Your task to perform on an android device: manage bookmarks in the chrome app Image 0: 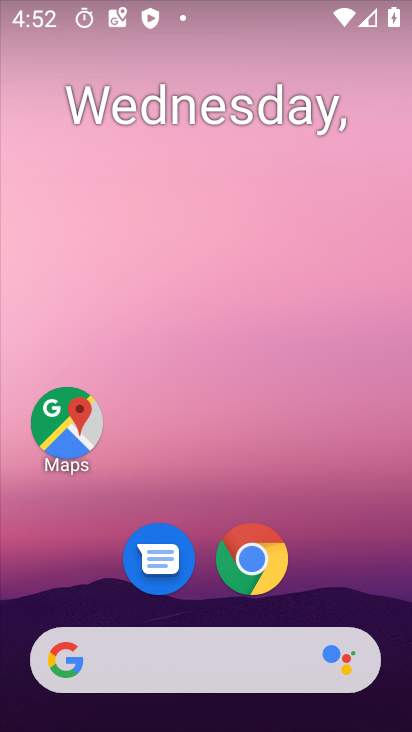
Step 0: click (256, 573)
Your task to perform on an android device: manage bookmarks in the chrome app Image 1: 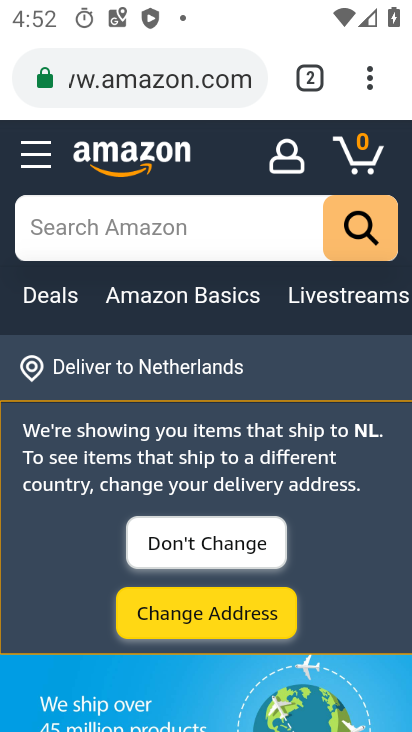
Step 1: click (365, 81)
Your task to perform on an android device: manage bookmarks in the chrome app Image 2: 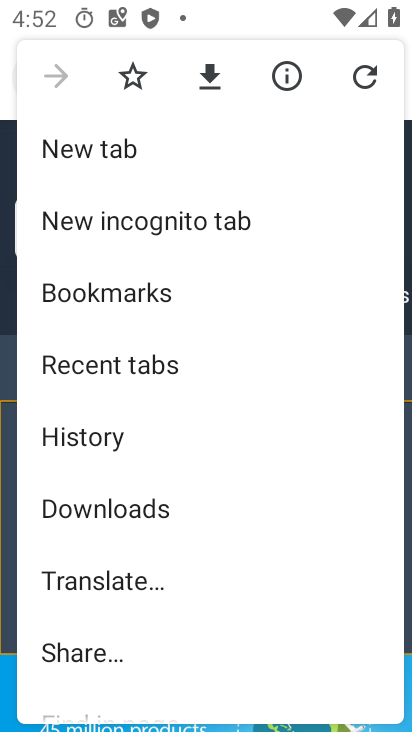
Step 2: click (152, 301)
Your task to perform on an android device: manage bookmarks in the chrome app Image 3: 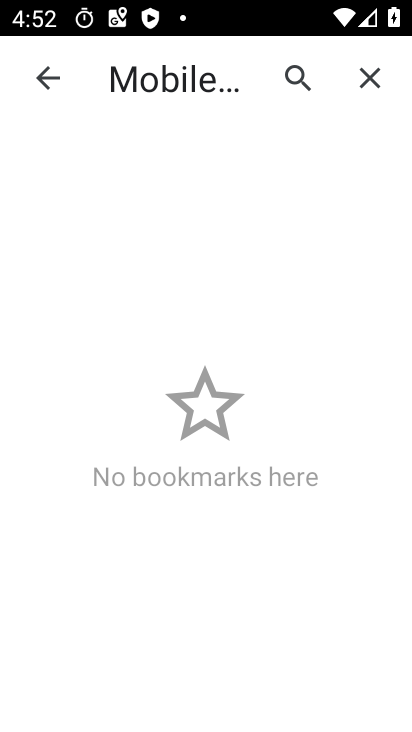
Step 3: task complete